Your task to perform on an android device: Go to notification settings Image 0: 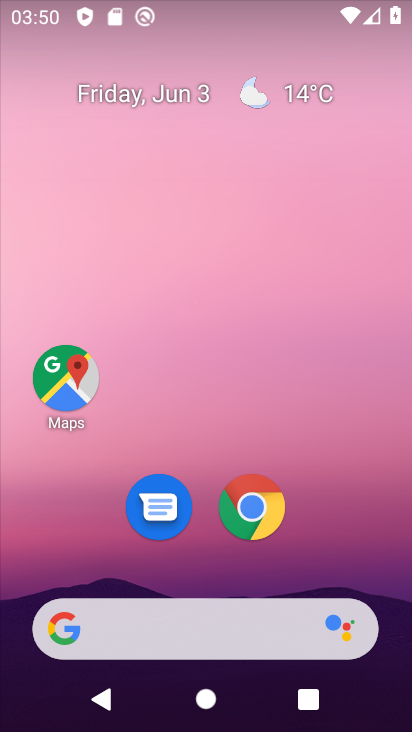
Step 0: drag from (303, 552) to (272, 20)
Your task to perform on an android device: Go to notification settings Image 1: 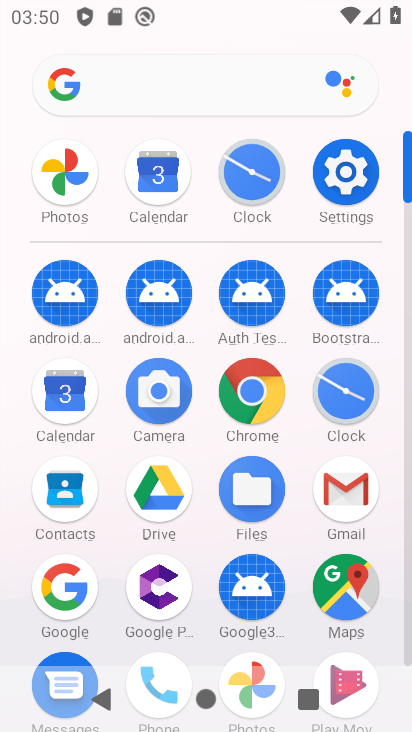
Step 1: click (330, 183)
Your task to perform on an android device: Go to notification settings Image 2: 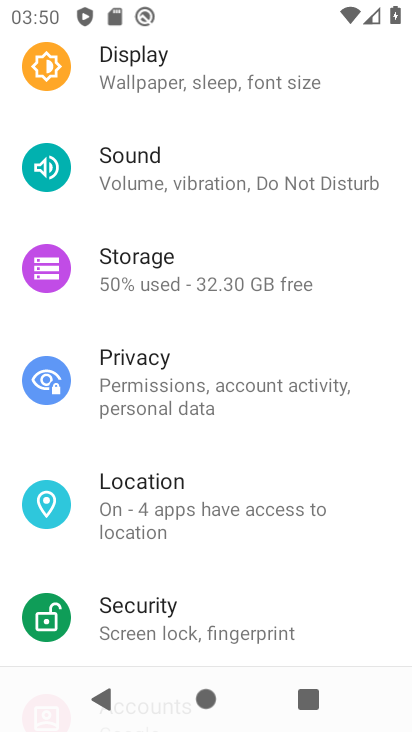
Step 2: drag from (193, 177) to (253, 620)
Your task to perform on an android device: Go to notification settings Image 3: 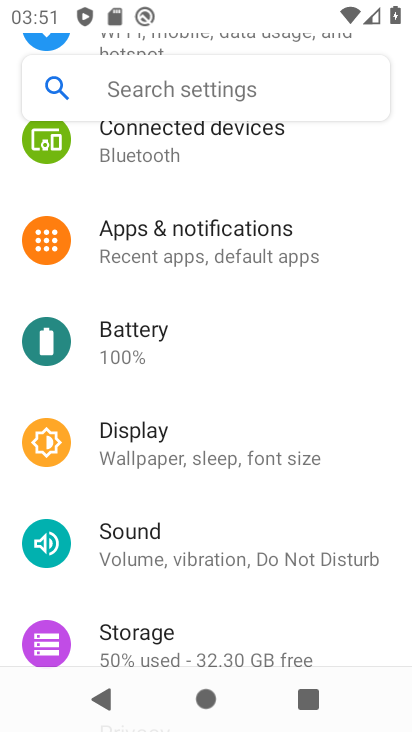
Step 3: click (181, 232)
Your task to perform on an android device: Go to notification settings Image 4: 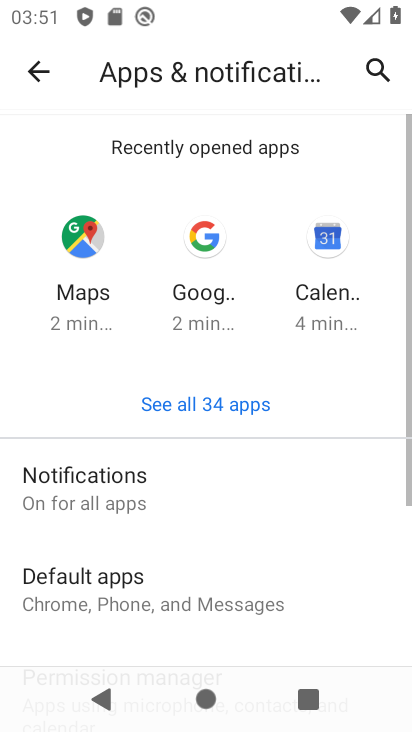
Step 4: click (85, 479)
Your task to perform on an android device: Go to notification settings Image 5: 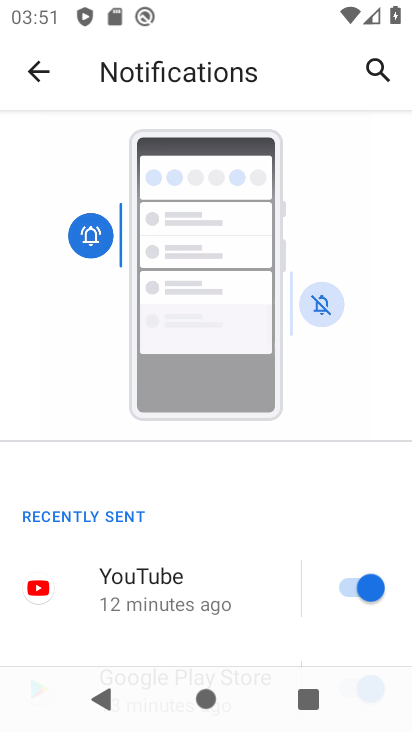
Step 5: task complete